Your task to perform on an android device: Go to Google Image 0: 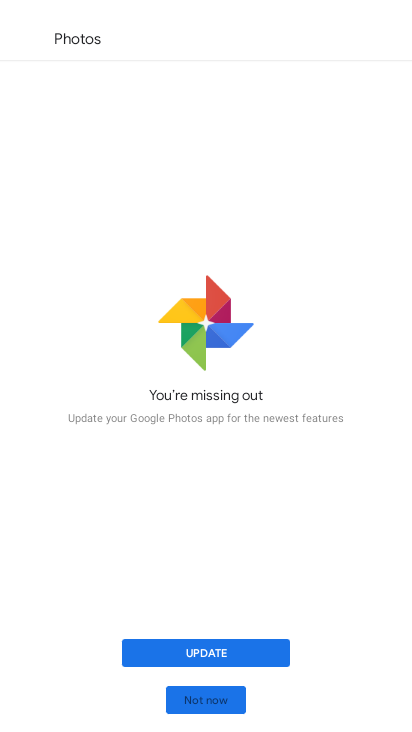
Step 0: press home button
Your task to perform on an android device: Go to Google Image 1: 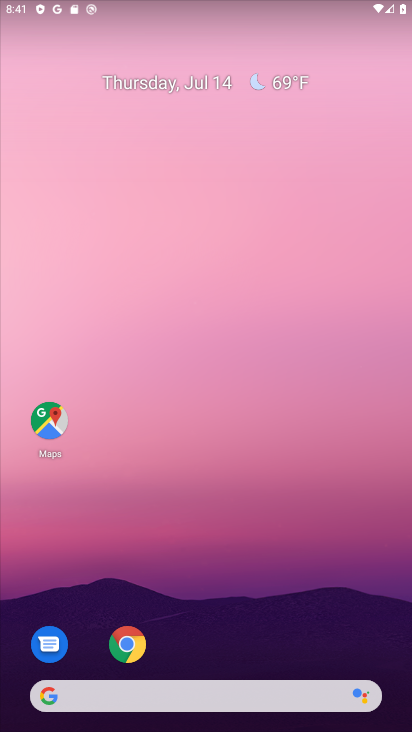
Step 1: click (202, 710)
Your task to perform on an android device: Go to Google Image 2: 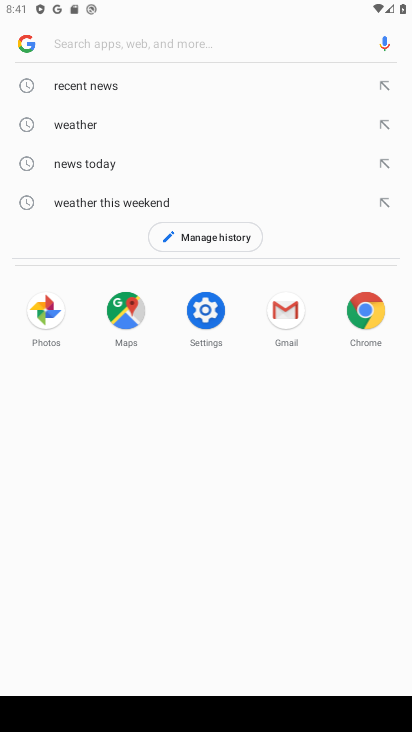
Step 2: task complete